Your task to perform on an android device: toggle show notifications on the lock screen Image 0: 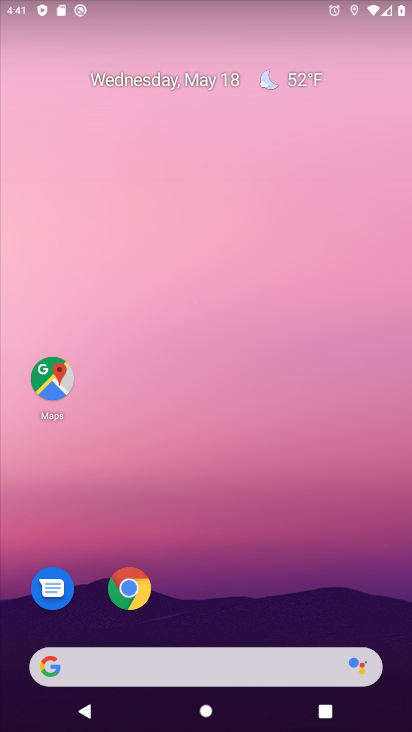
Step 0: drag from (314, 578) to (259, 41)
Your task to perform on an android device: toggle show notifications on the lock screen Image 1: 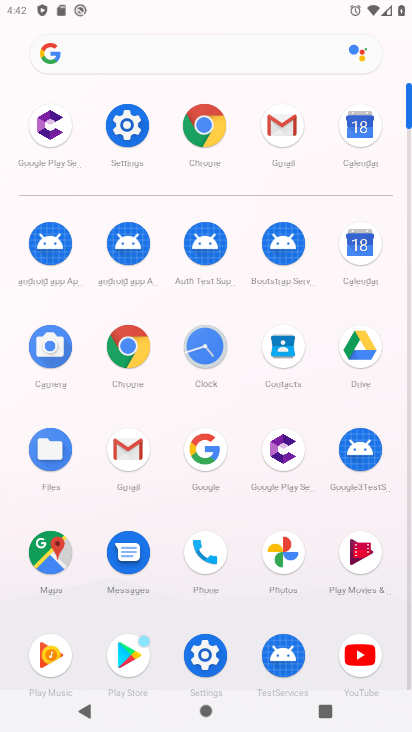
Step 1: click (131, 122)
Your task to perform on an android device: toggle show notifications on the lock screen Image 2: 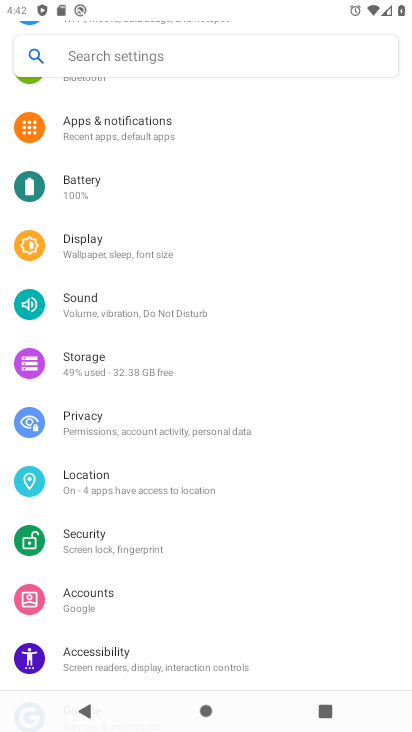
Step 2: click (135, 150)
Your task to perform on an android device: toggle show notifications on the lock screen Image 3: 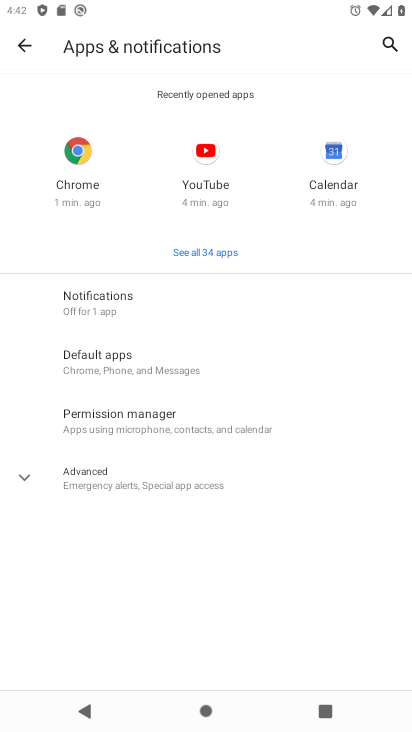
Step 3: click (122, 309)
Your task to perform on an android device: toggle show notifications on the lock screen Image 4: 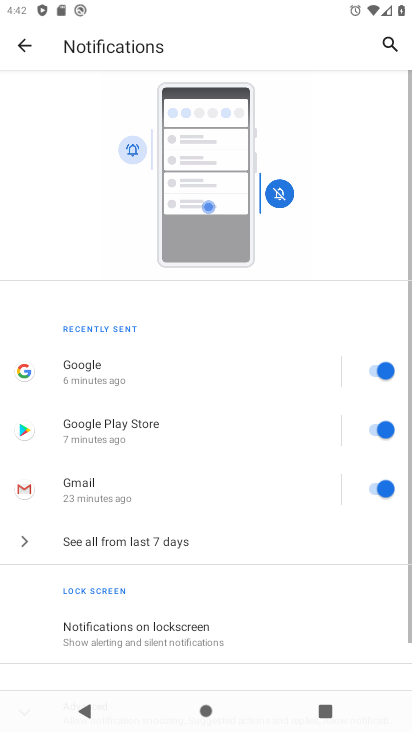
Step 4: drag from (195, 603) to (217, 82)
Your task to perform on an android device: toggle show notifications on the lock screen Image 5: 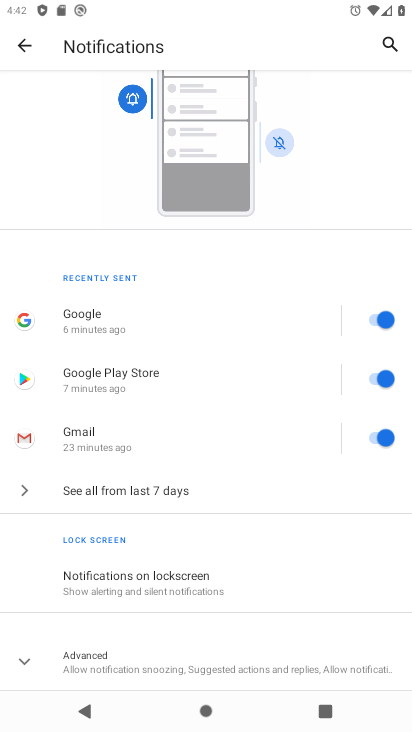
Step 5: click (129, 584)
Your task to perform on an android device: toggle show notifications on the lock screen Image 6: 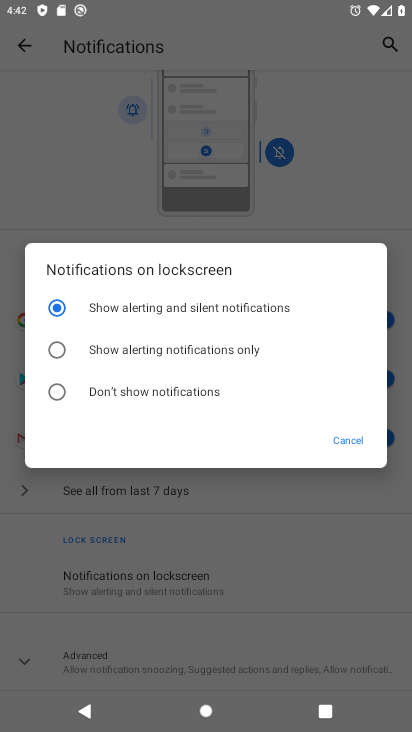
Step 6: click (213, 360)
Your task to perform on an android device: toggle show notifications on the lock screen Image 7: 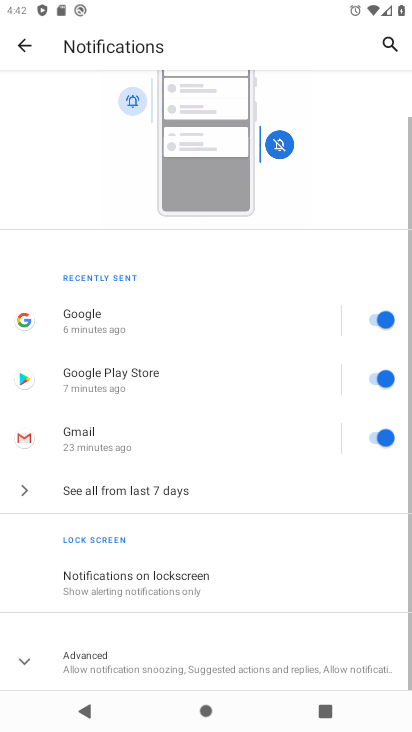
Step 7: task complete